Your task to perform on an android device: toggle show notifications on the lock screen Image 0: 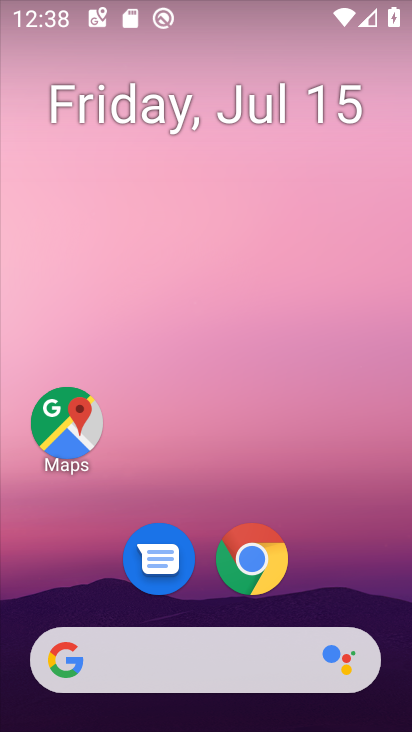
Step 0: drag from (334, 559) to (362, 70)
Your task to perform on an android device: toggle show notifications on the lock screen Image 1: 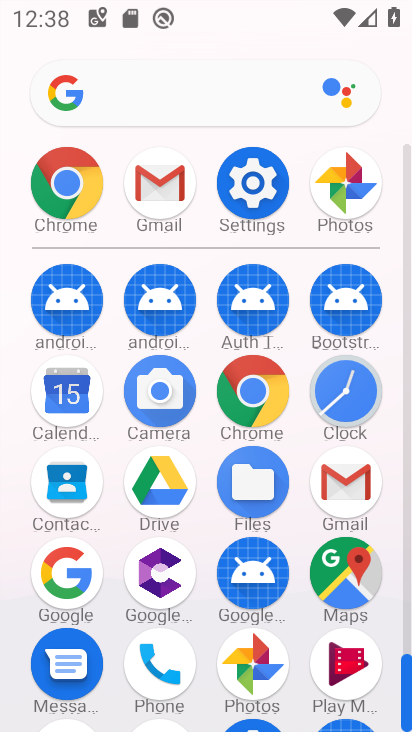
Step 1: click (262, 195)
Your task to perform on an android device: toggle show notifications on the lock screen Image 2: 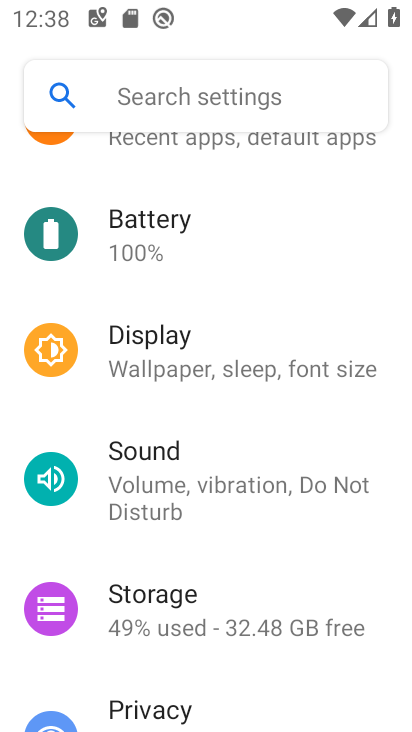
Step 2: drag from (324, 228) to (332, 311)
Your task to perform on an android device: toggle show notifications on the lock screen Image 3: 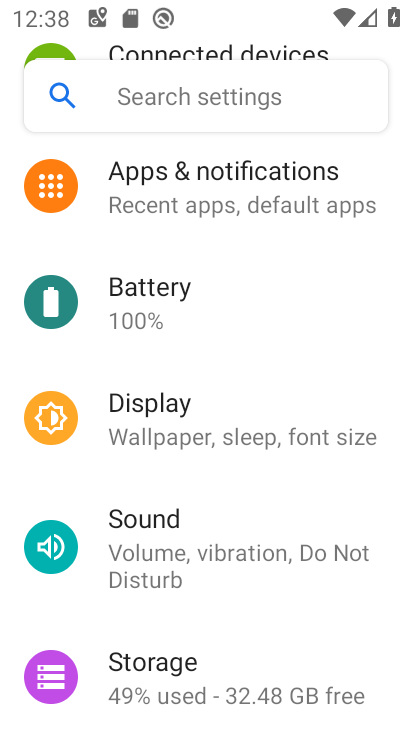
Step 3: drag from (345, 251) to (345, 354)
Your task to perform on an android device: toggle show notifications on the lock screen Image 4: 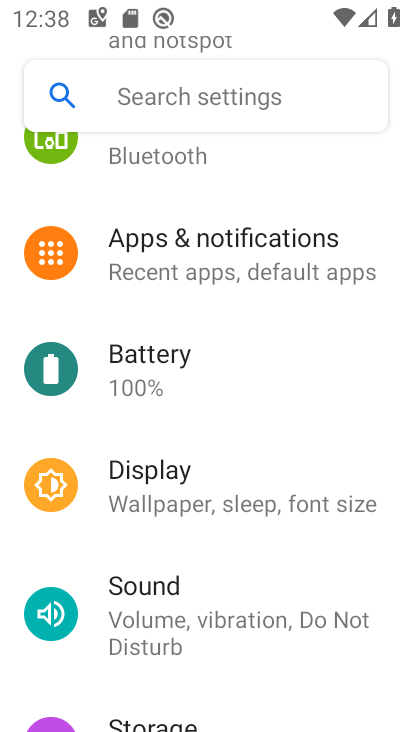
Step 4: drag from (369, 208) to (367, 361)
Your task to perform on an android device: toggle show notifications on the lock screen Image 5: 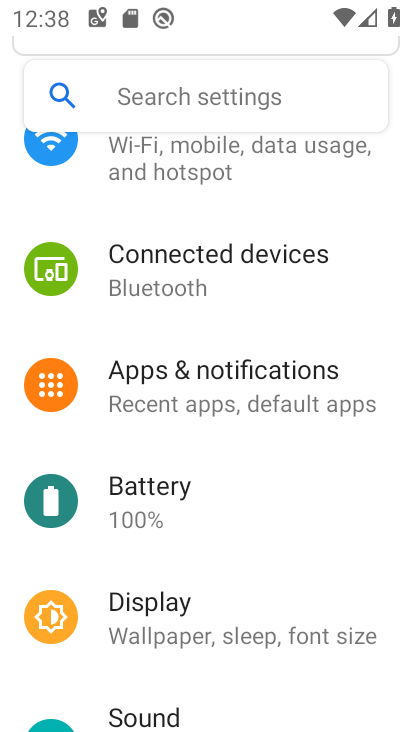
Step 5: drag from (354, 211) to (358, 357)
Your task to perform on an android device: toggle show notifications on the lock screen Image 6: 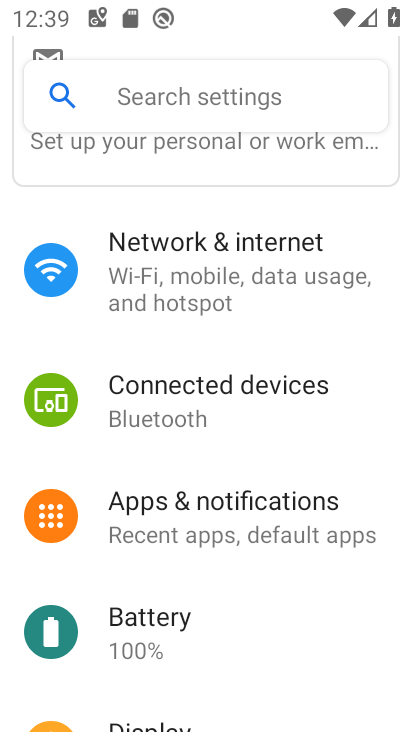
Step 6: click (311, 512)
Your task to perform on an android device: toggle show notifications on the lock screen Image 7: 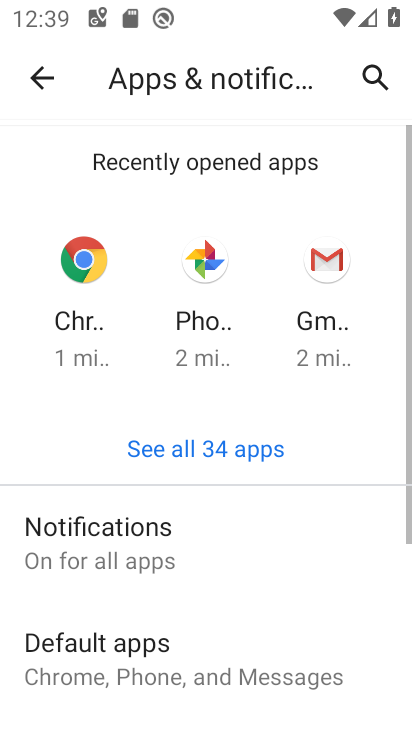
Step 7: drag from (301, 538) to (311, 466)
Your task to perform on an android device: toggle show notifications on the lock screen Image 8: 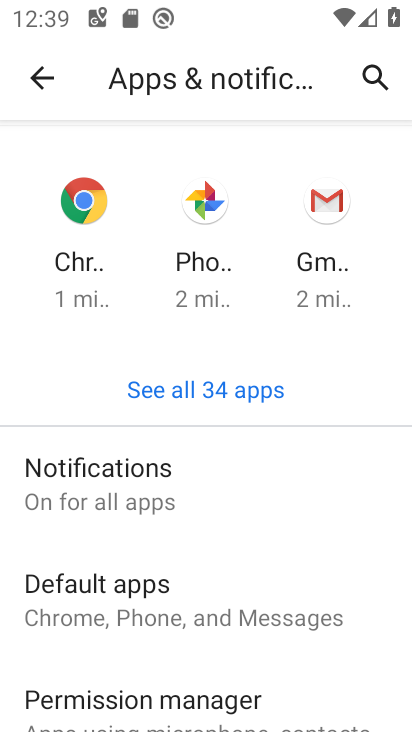
Step 8: drag from (337, 529) to (350, 431)
Your task to perform on an android device: toggle show notifications on the lock screen Image 9: 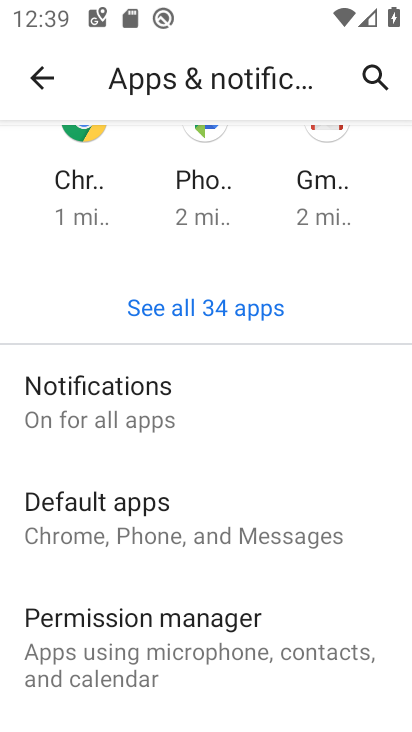
Step 9: drag from (326, 557) to (345, 439)
Your task to perform on an android device: toggle show notifications on the lock screen Image 10: 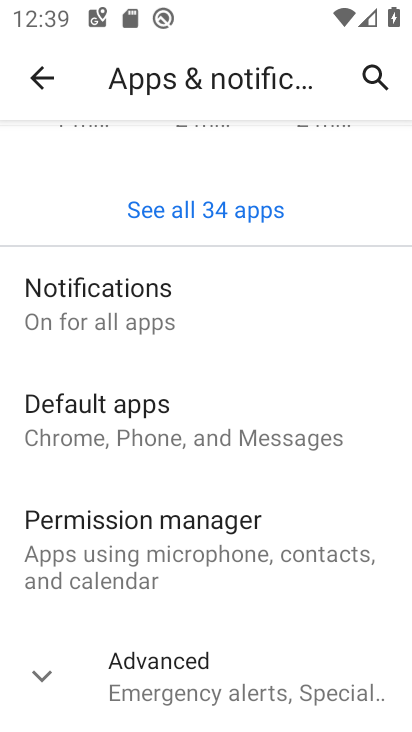
Step 10: drag from (327, 601) to (333, 476)
Your task to perform on an android device: toggle show notifications on the lock screen Image 11: 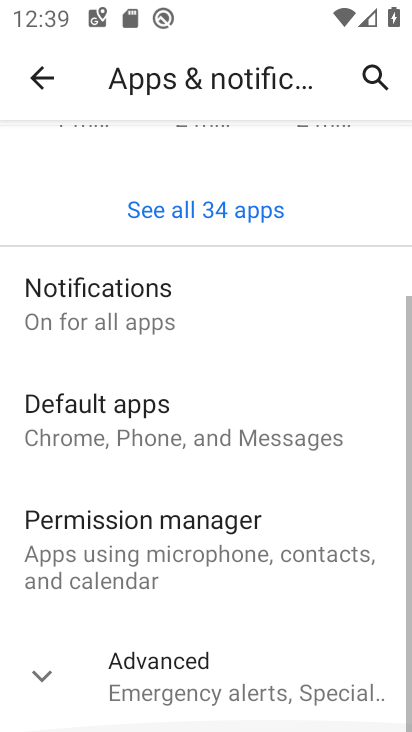
Step 11: click (239, 291)
Your task to perform on an android device: toggle show notifications on the lock screen Image 12: 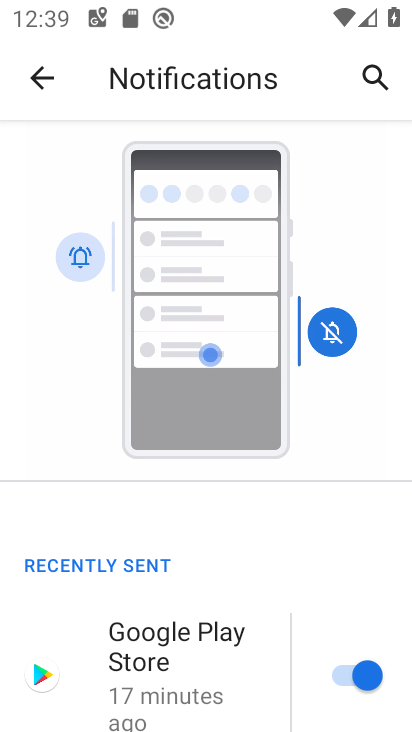
Step 12: drag from (263, 560) to (282, 439)
Your task to perform on an android device: toggle show notifications on the lock screen Image 13: 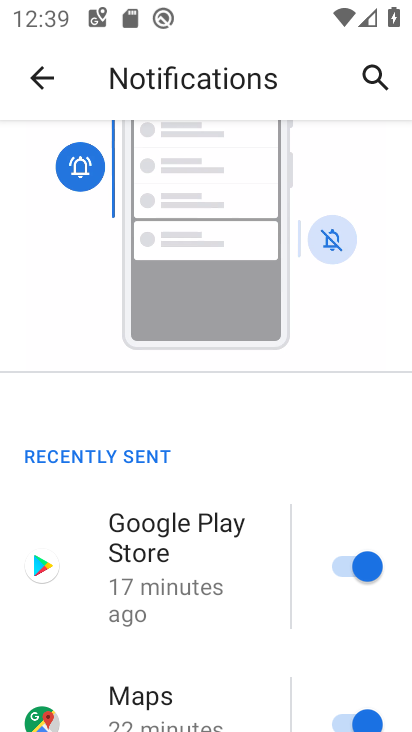
Step 13: drag from (262, 606) to (271, 496)
Your task to perform on an android device: toggle show notifications on the lock screen Image 14: 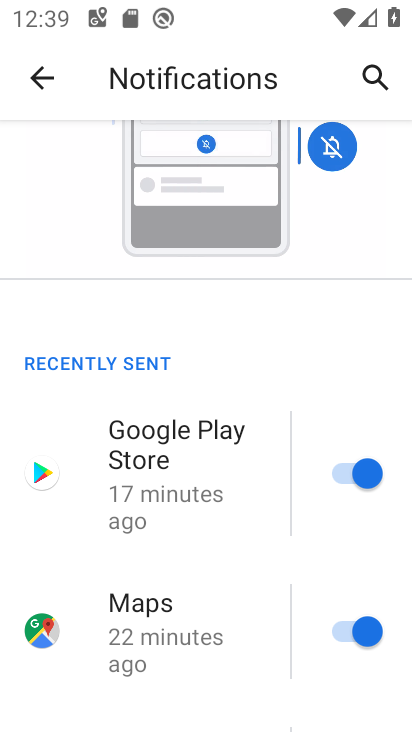
Step 14: drag from (237, 619) to (249, 543)
Your task to perform on an android device: toggle show notifications on the lock screen Image 15: 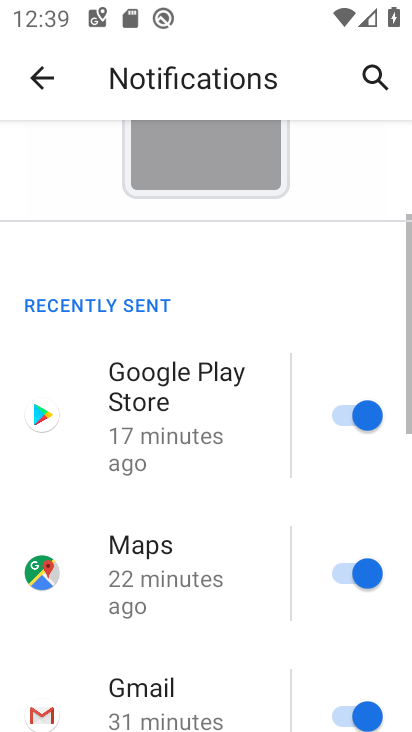
Step 15: drag from (247, 644) to (259, 559)
Your task to perform on an android device: toggle show notifications on the lock screen Image 16: 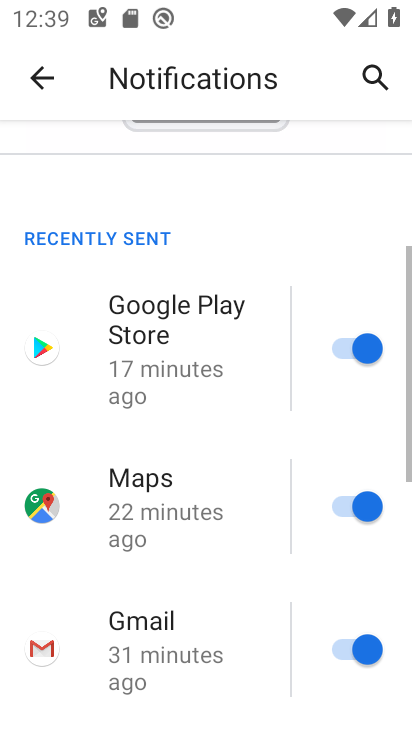
Step 16: drag from (260, 642) to (275, 553)
Your task to perform on an android device: toggle show notifications on the lock screen Image 17: 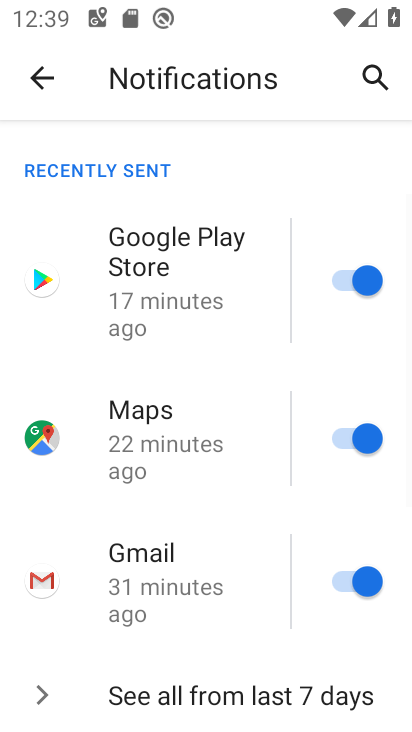
Step 17: drag from (261, 638) to (267, 552)
Your task to perform on an android device: toggle show notifications on the lock screen Image 18: 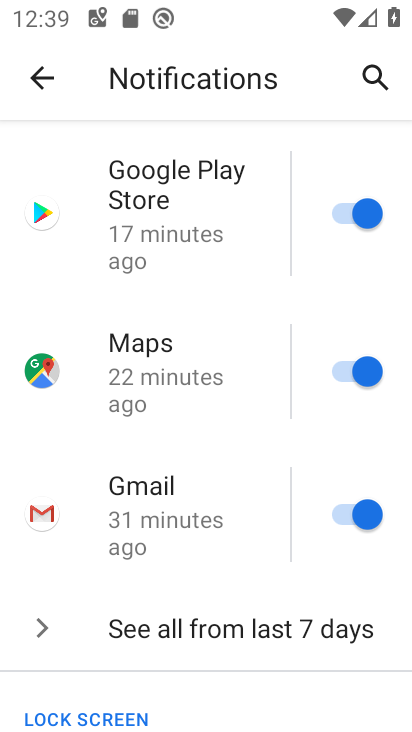
Step 18: drag from (251, 607) to (258, 537)
Your task to perform on an android device: toggle show notifications on the lock screen Image 19: 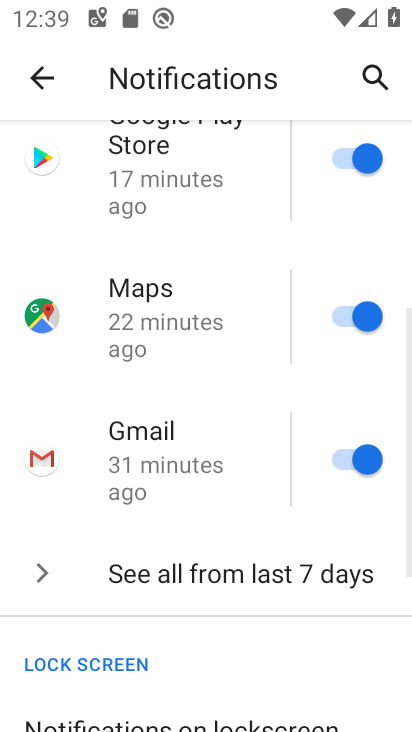
Step 19: drag from (248, 608) to (256, 548)
Your task to perform on an android device: toggle show notifications on the lock screen Image 20: 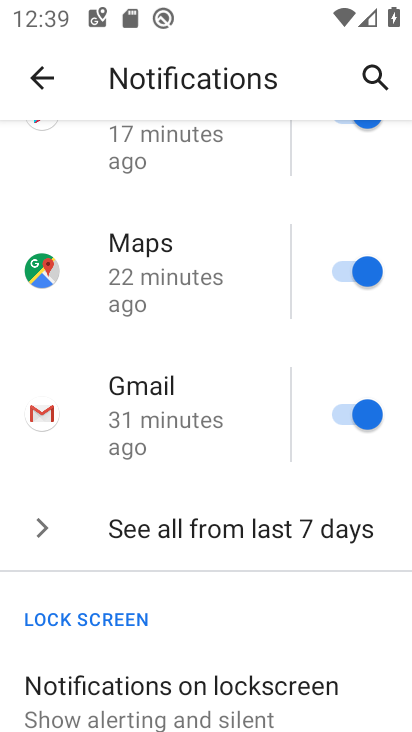
Step 20: drag from (239, 624) to (256, 489)
Your task to perform on an android device: toggle show notifications on the lock screen Image 21: 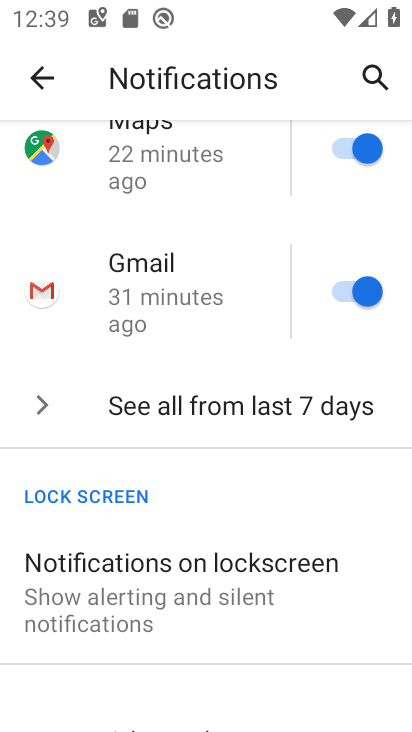
Step 21: click (257, 584)
Your task to perform on an android device: toggle show notifications on the lock screen Image 22: 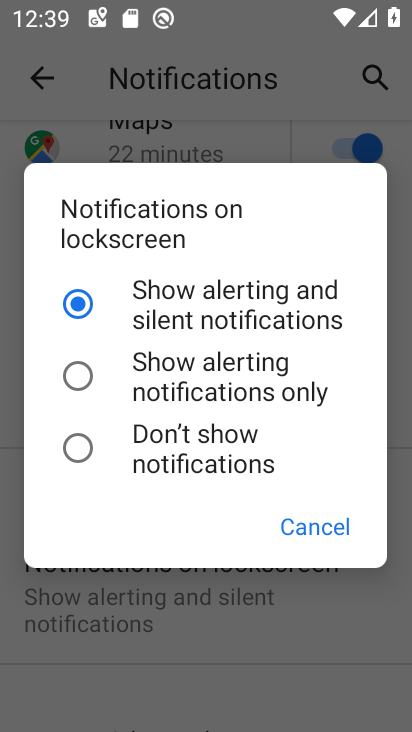
Step 22: click (230, 365)
Your task to perform on an android device: toggle show notifications on the lock screen Image 23: 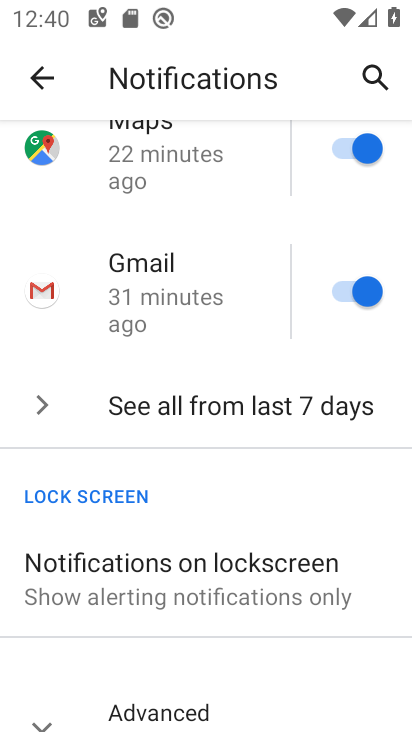
Step 23: task complete